Your task to perform on an android device: Open calendar and show me the third week of next month Image 0: 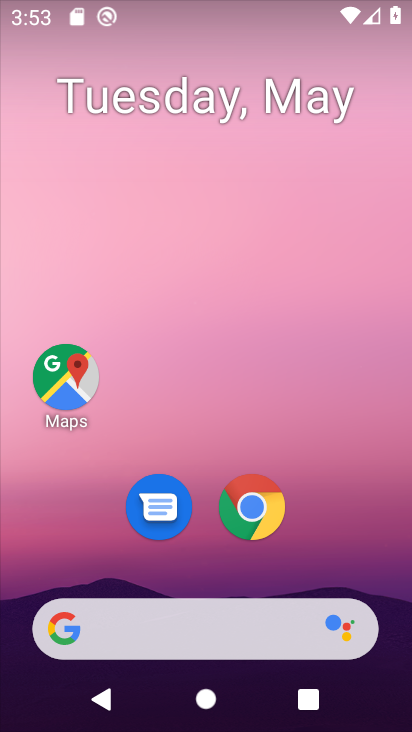
Step 0: drag from (306, 543) to (327, 11)
Your task to perform on an android device: Open calendar and show me the third week of next month Image 1: 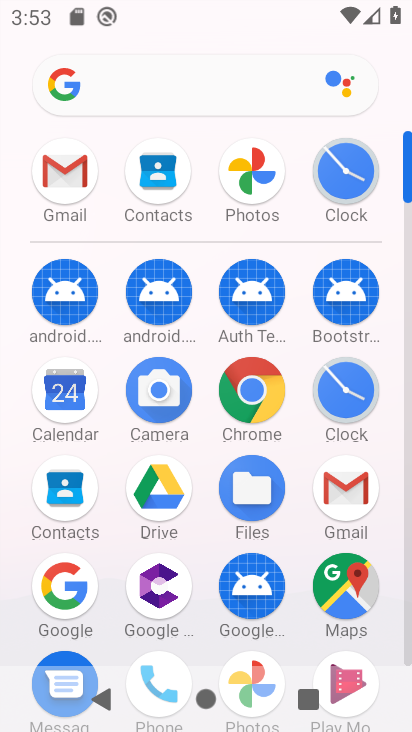
Step 1: click (58, 388)
Your task to perform on an android device: Open calendar and show me the third week of next month Image 2: 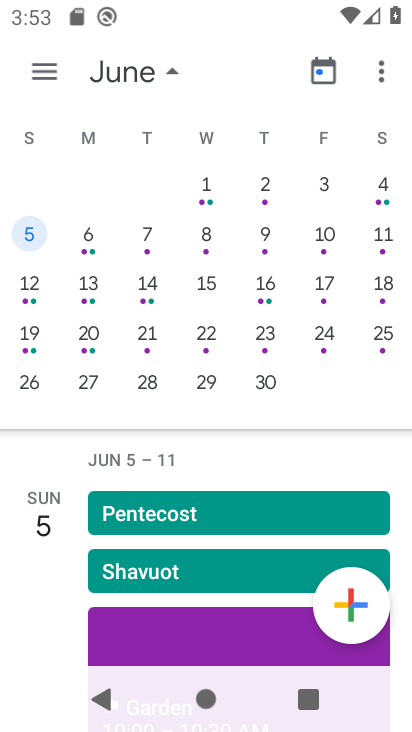
Step 2: click (36, 300)
Your task to perform on an android device: Open calendar and show me the third week of next month Image 3: 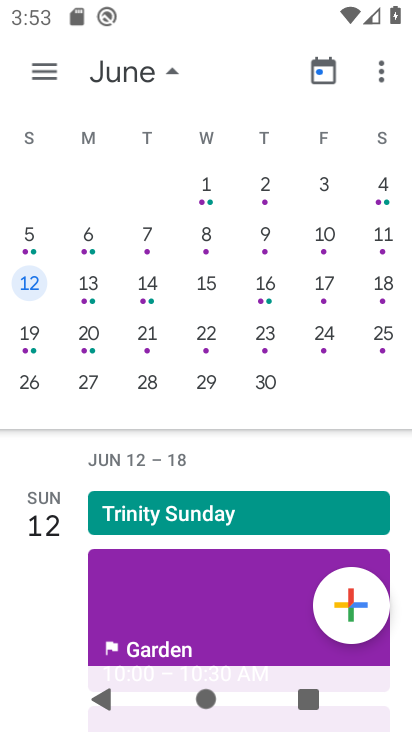
Step 3: task complete